Your task to perform on an android device: Go to eBay Image 0: 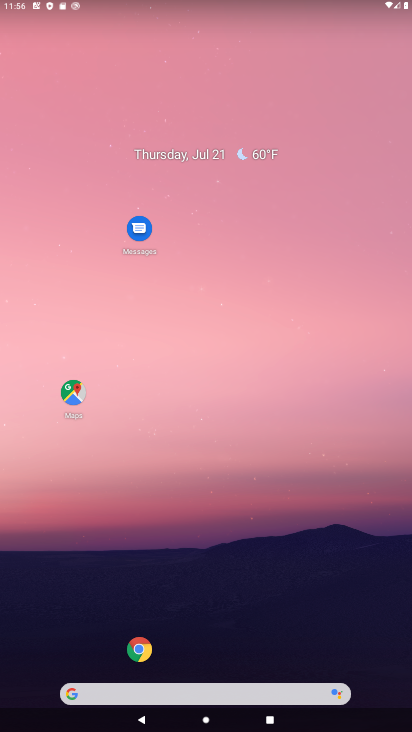
Step 0: click (110, 689)
Your task to perform on an android device: Go to eBay Image 1: 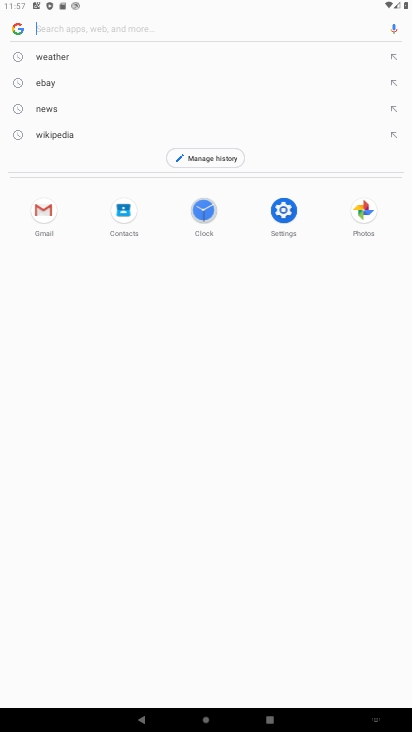
Step 1: click (47, 80)
Your task to perform on an android device: Go to eBay Image 2: 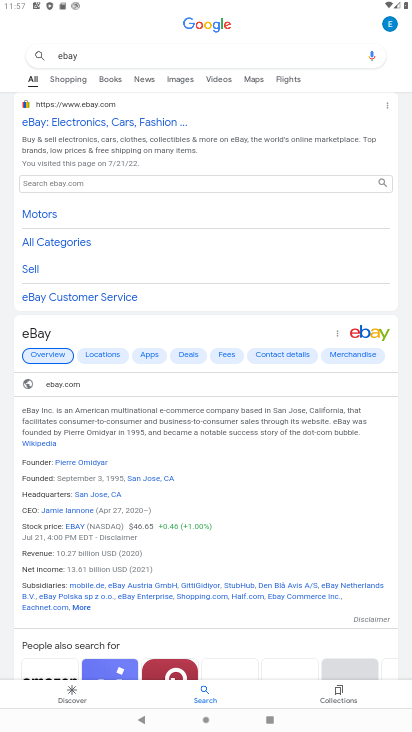
Step 2: task complete